Your task to perform on an android device: change the clock style Image 0: 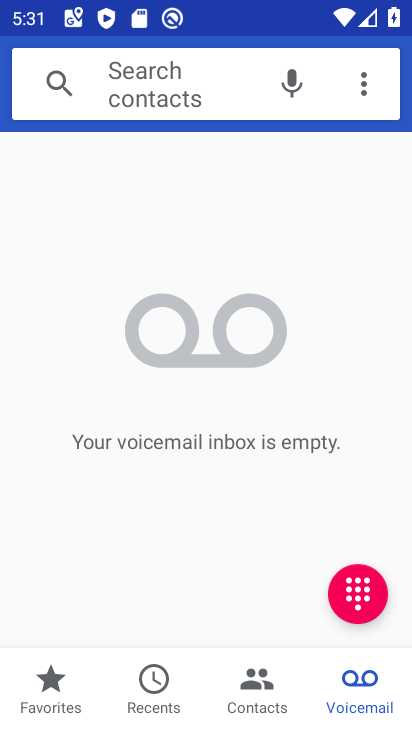
Step 0: press home button
Your task to perform on an android device: change the clock style Image 1: 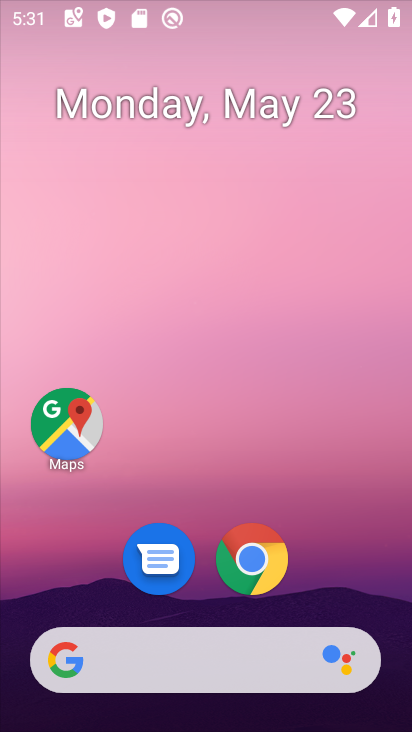
Step 1: drag from (178, 587) to (384, 13)
Your task to perform on an android device: change the clock style Image 2: 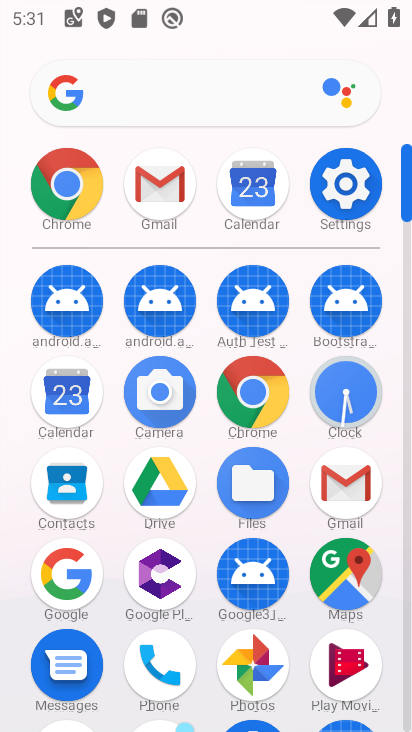
Step 2: click (359, 402)
Your task to perform on an android device: change the clock style Image 3: 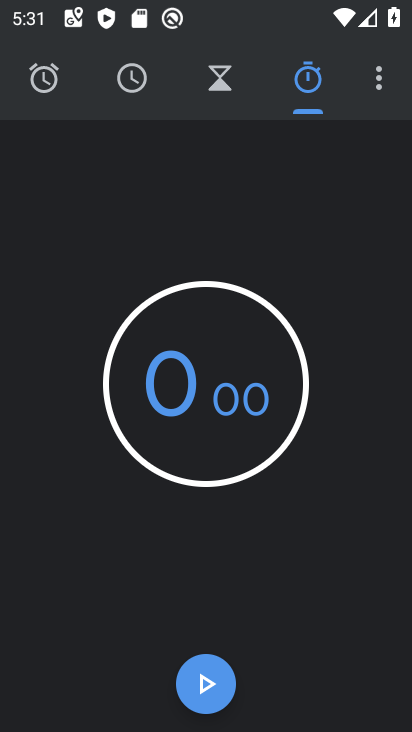
Step 3: click (393, 80)
Your task to perform on an android device: change the clock style Image 4: 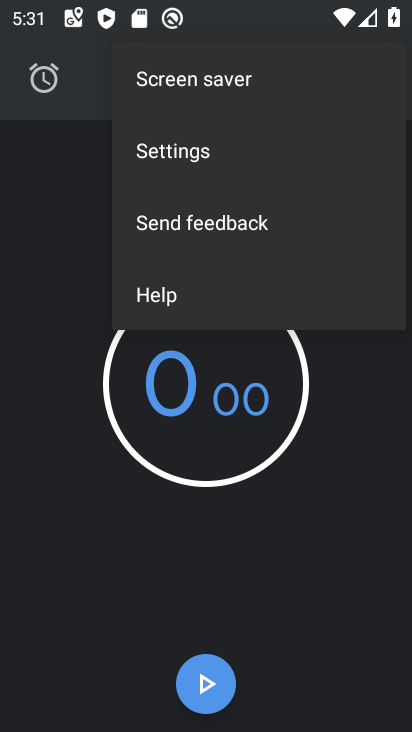
Step 4: click (183, 156)
Your task to perform on an android device: change the clock style Image 5: 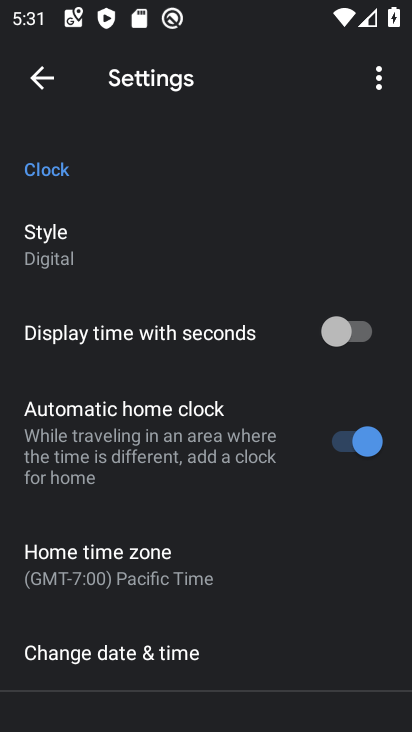
Step 5: click (179, 253)
Your task to perform on an android device: change the clock style Image 6: 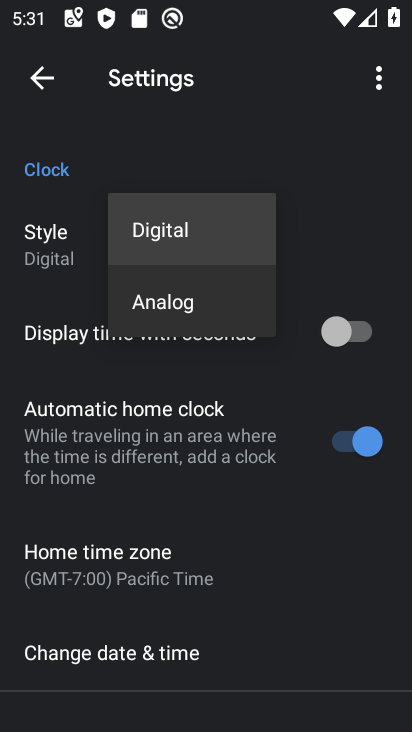
Step 6: click (175, 295)
Your task to perform on an android device: change the clock style Image 7: 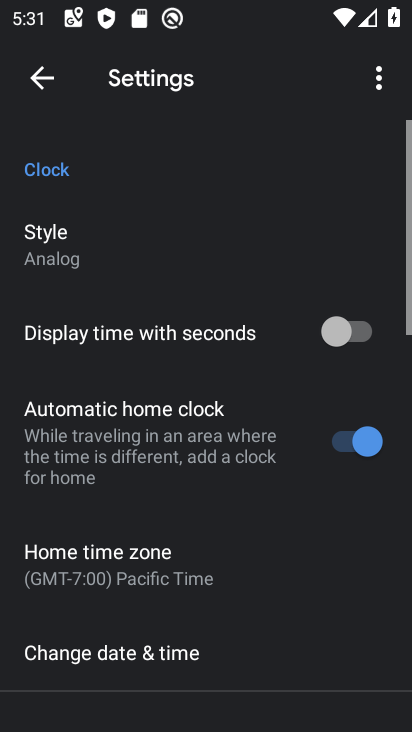
Step 7: task complete